Your task to perform on an android device: Open Amazon Image 0: 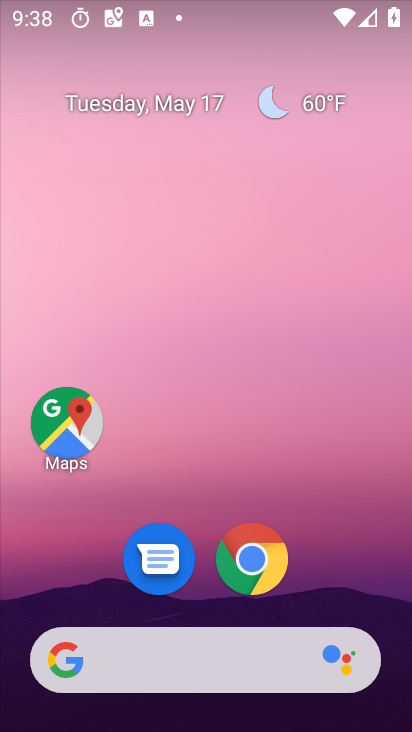
Step 0: drag from (219, 661) to (271, 218)
Your task to perform on an android device: Open Amazon Image 1: 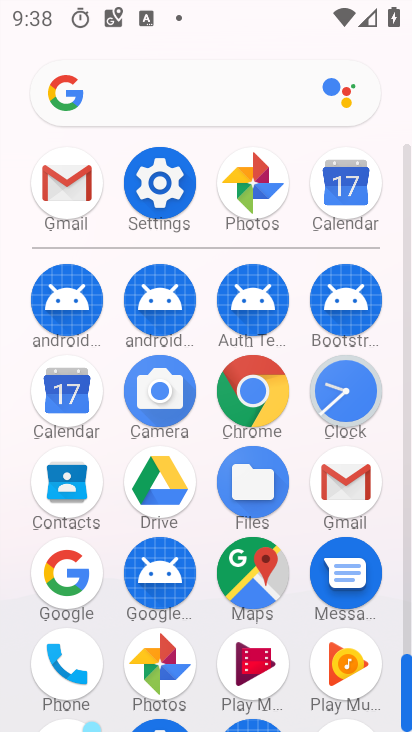
Step 1: drag from (278, 573) to (269, 128)
Your task to perform on an android device: Open Amazon Image 2: 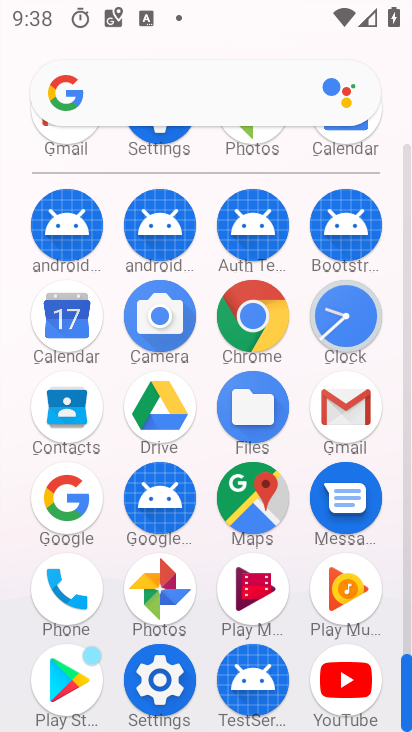
Step 2: click (270, 340)
Your task to perform on an android device: Open Amazon Image 3: 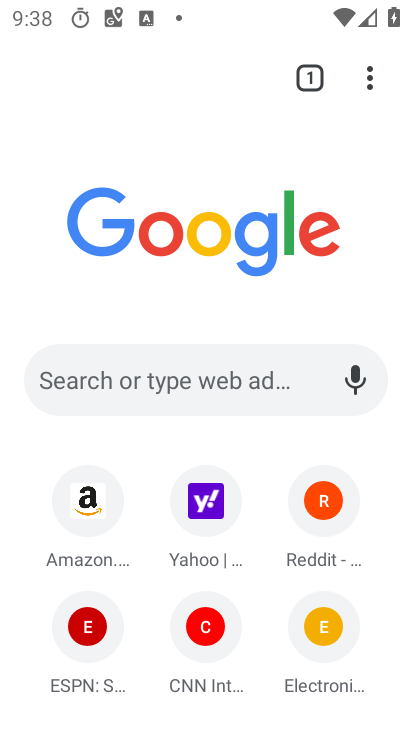
Step 3: click (86, 511)
Your task to perform on an android device: Open Amazon Image 4: 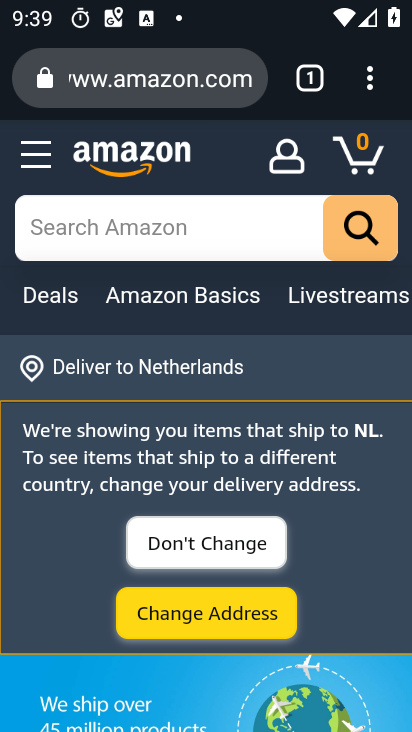
Step 4: task complete